Your task to perform on an android device: open app "Fetch Rewards" (install if not already installed) Image 0: 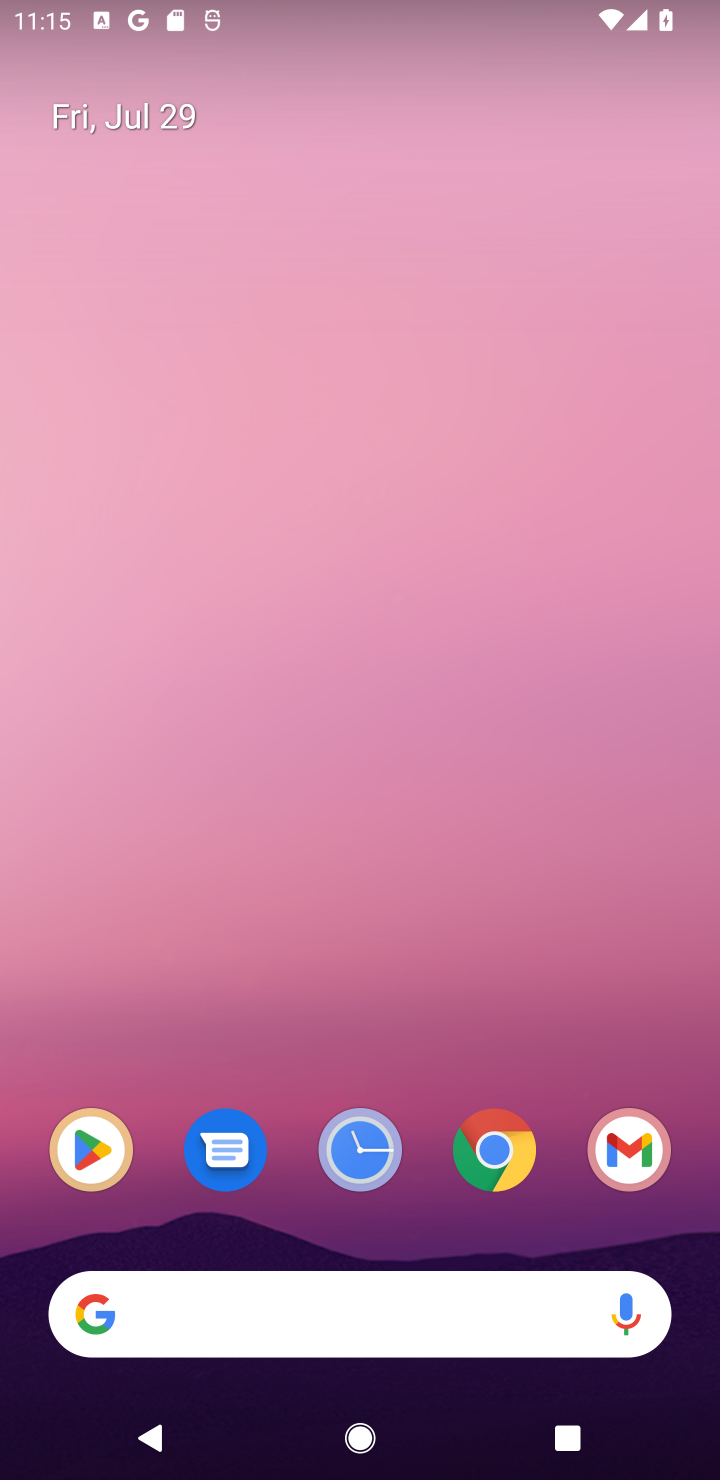
Step 0: click (67, 1156)
Your task to perform on an android device: open app "Fetch Rewards" (install if not already installed) Image 1: 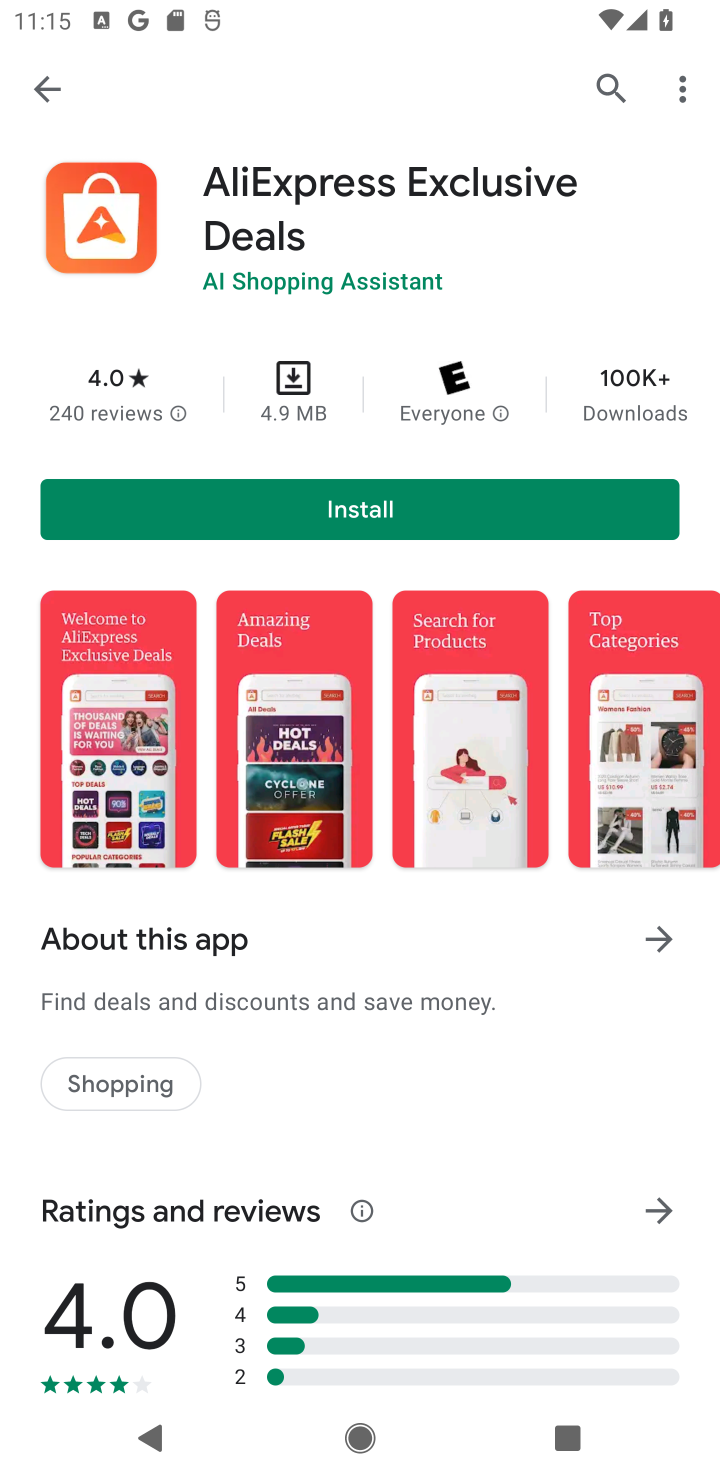
Step 1: click (605, 89)
Your task to perform on an android device: open app "Fetch Rewards" (install if not already installed) Image 2: 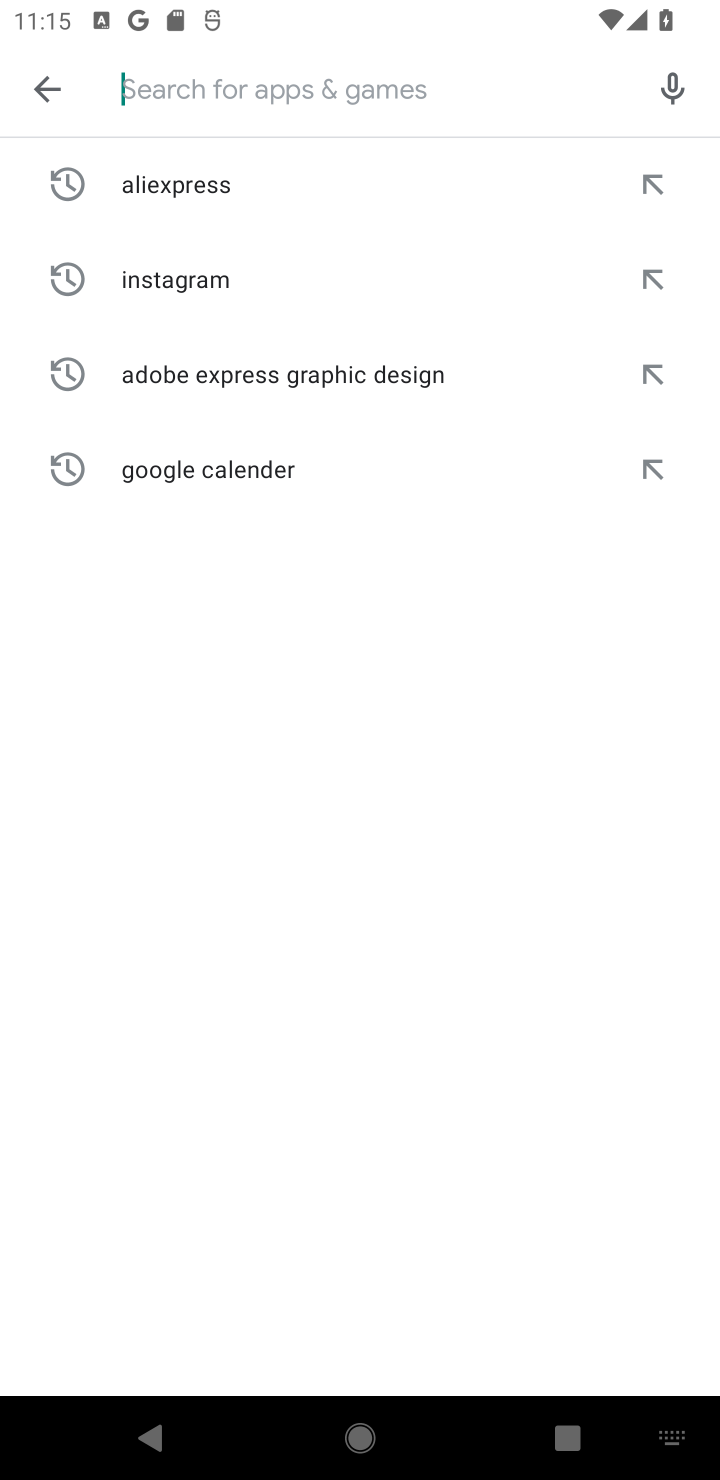
Step 2: click (293, 88)
Your task to perform on an android device: open app "Fetch Rewards" (install if not already installed) Image 3: 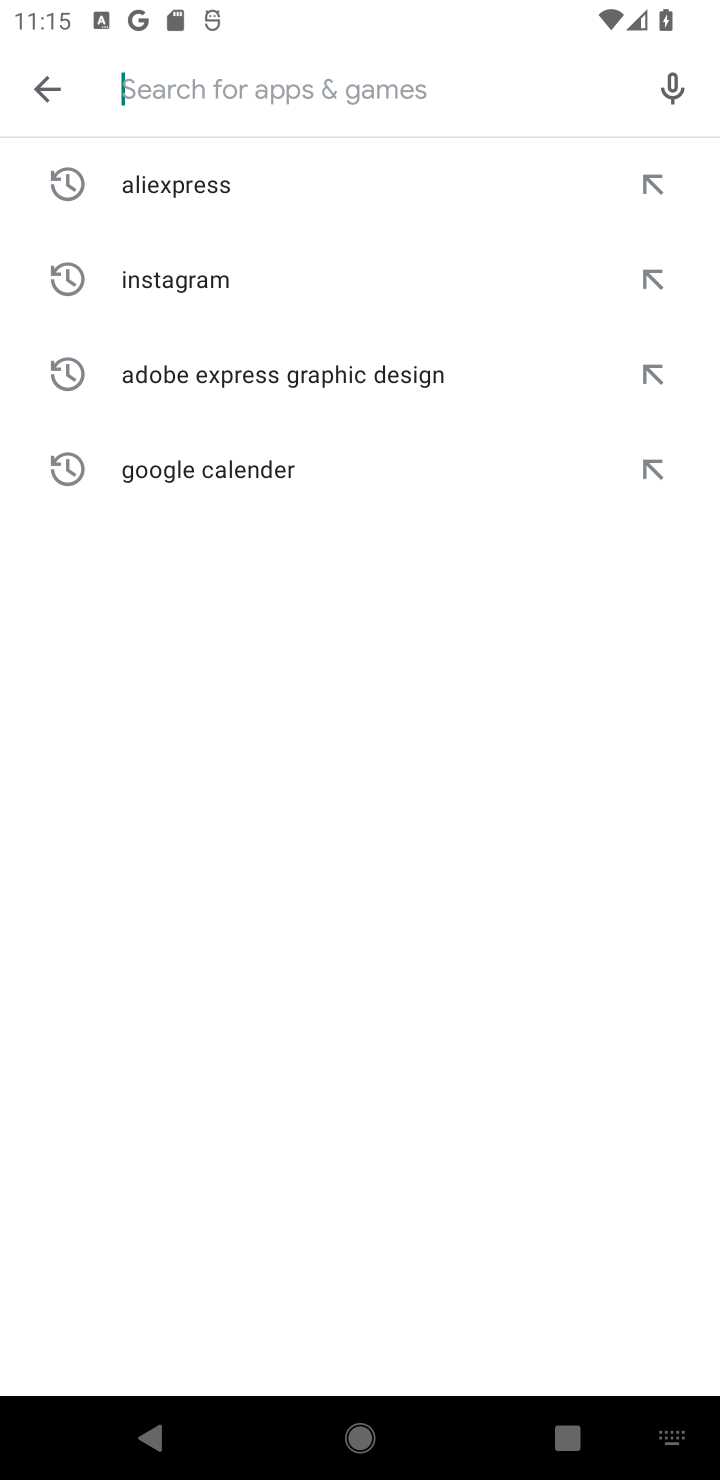
Step 3: type "fetch rewar"
Your task to perform on an android device: open app "Fetch Rewards" (install if not already installed) Image 4: 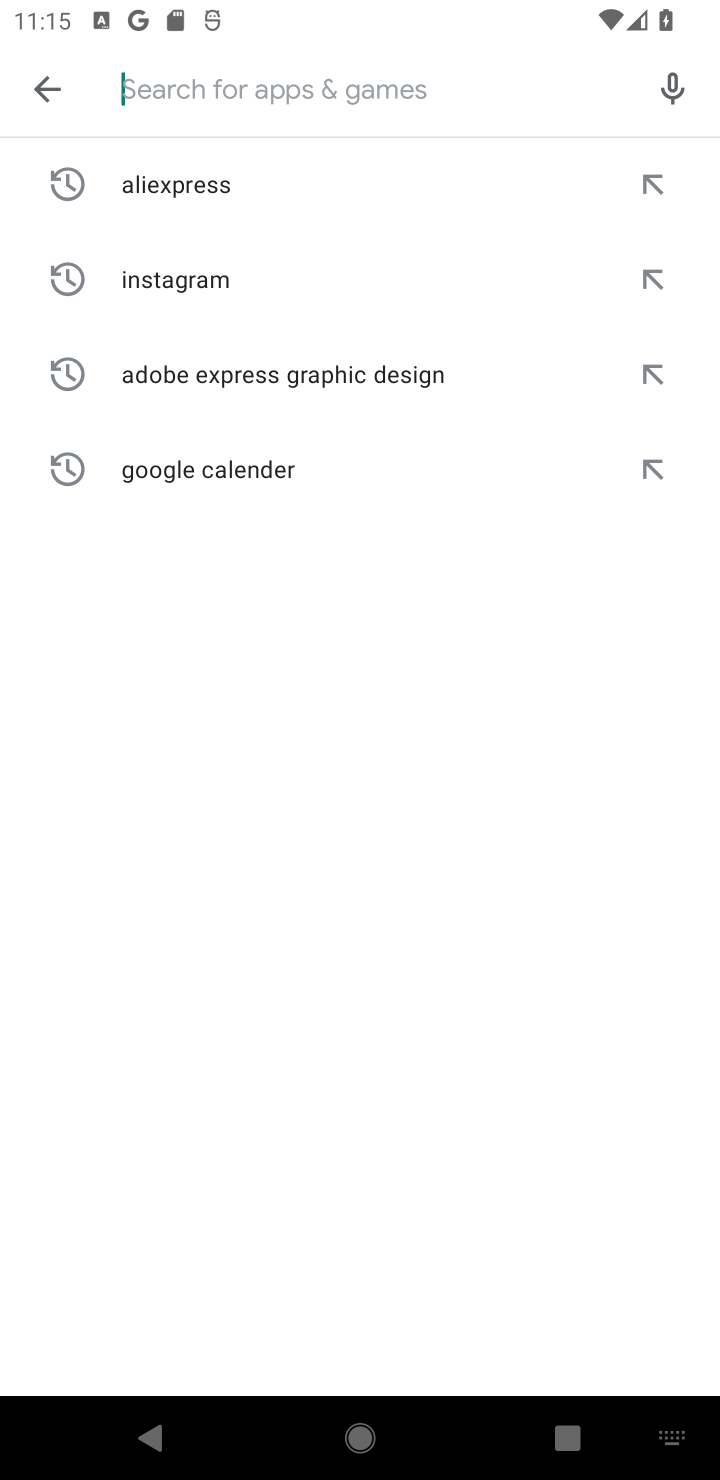
Step 4: click (224, 88)
Your task to perform on an android device: open app "Fetch Rewards" (install if not already installed) Image 5: 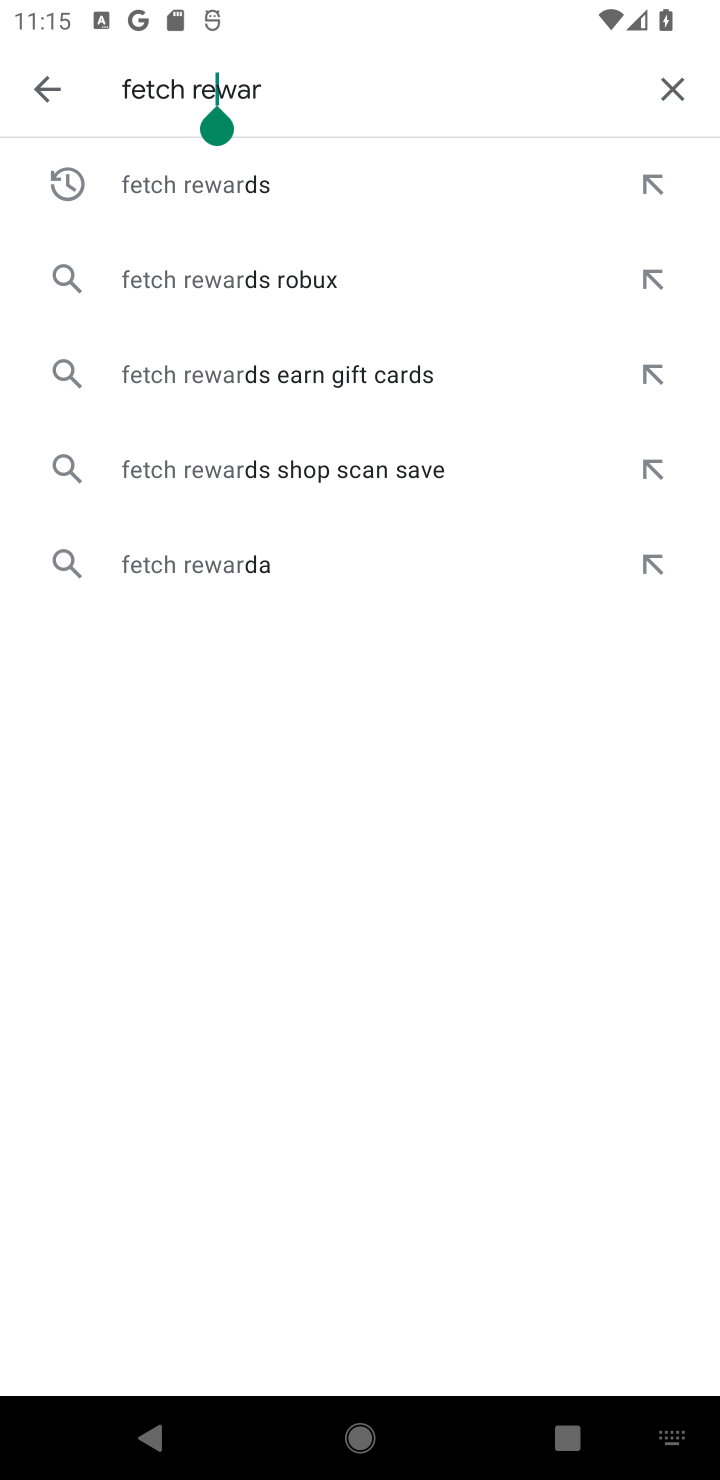
Step 5: click (251, 175)
Your task to perform on an android device: open app "Fetch Rewards" (install if not already installed) Image 6: 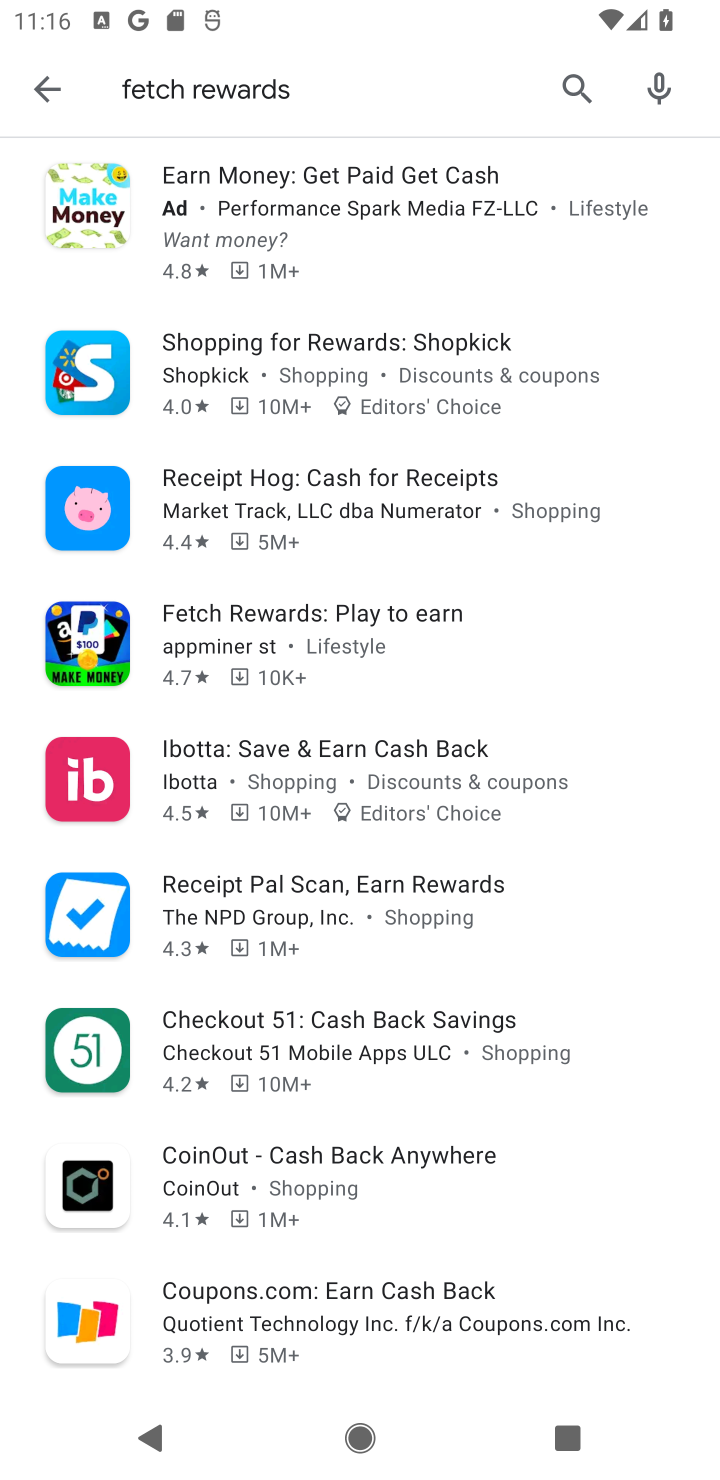
Step 6: task complete